Your task to perform on an android device: create a new album in the google photos Image 0: 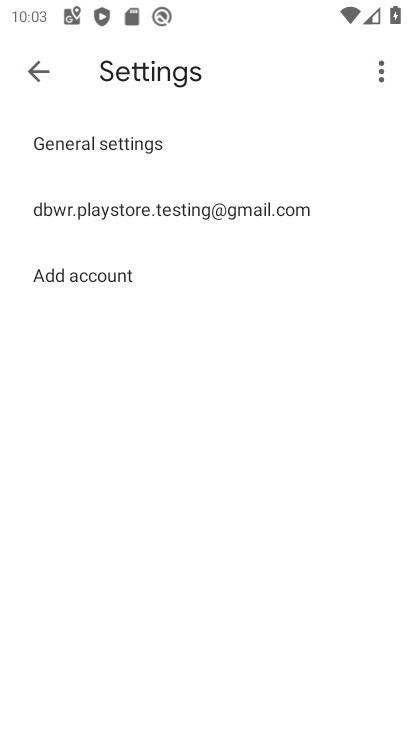
Step 0: press home button
Your task to perform on an android device: create a new album in the google photos Image 1: 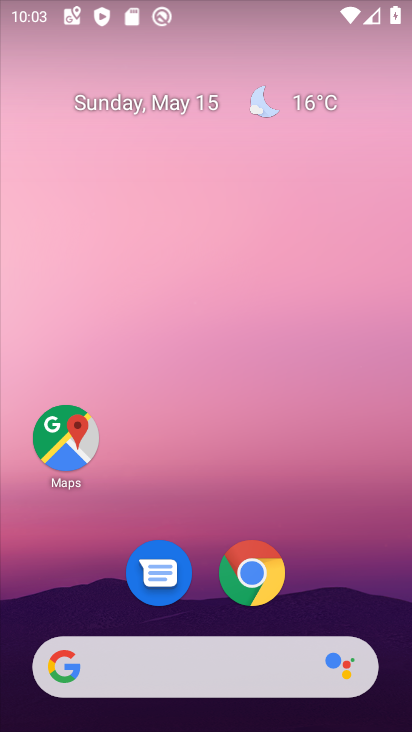
Step 1: drag from (383, 562) to (333, 94)
Your task to perform on an android device: create a new album in the google photos Image 2: 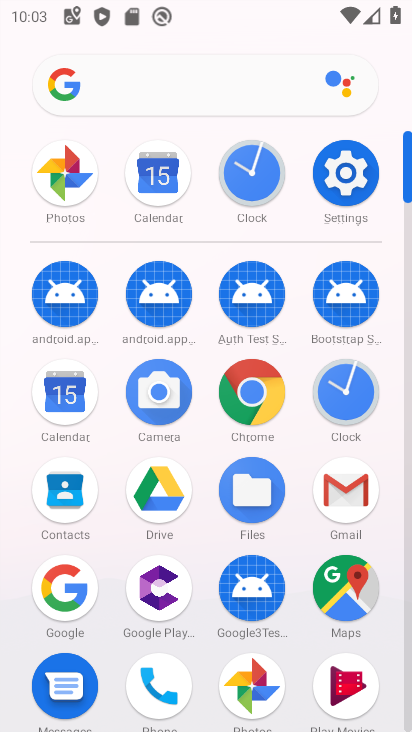
Step 2: click (260, 684)
Your task to perform on an android device: create a new album in the google photos Image 3: 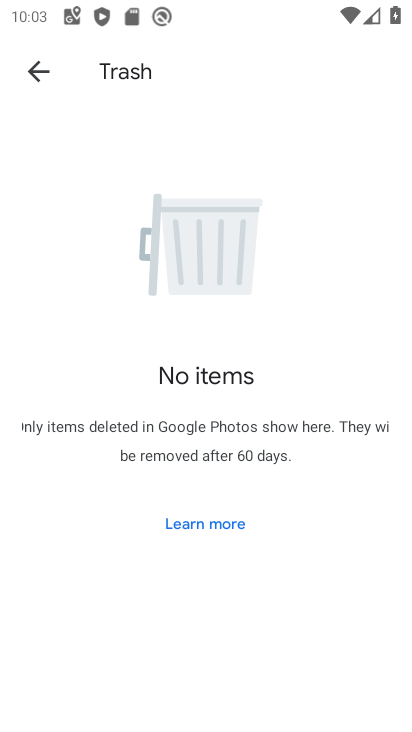
Step 3: click (43, 73)
Your task to perform on an android device: create a new album in the google photos Image 4: 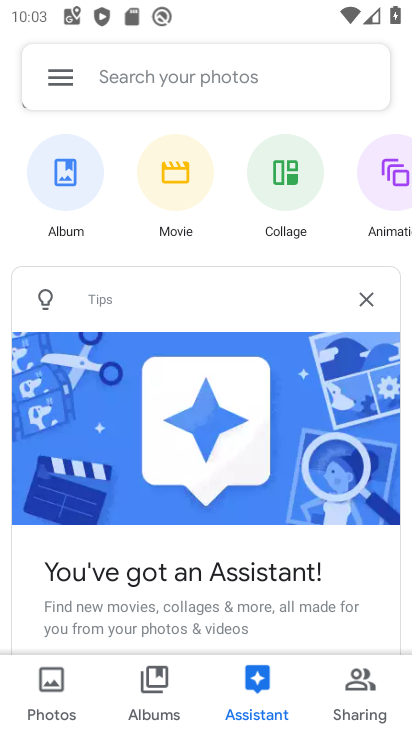
Step 4: click (141, 709)
Your task to perform on an android device: create a new album in the google photos Image 5: 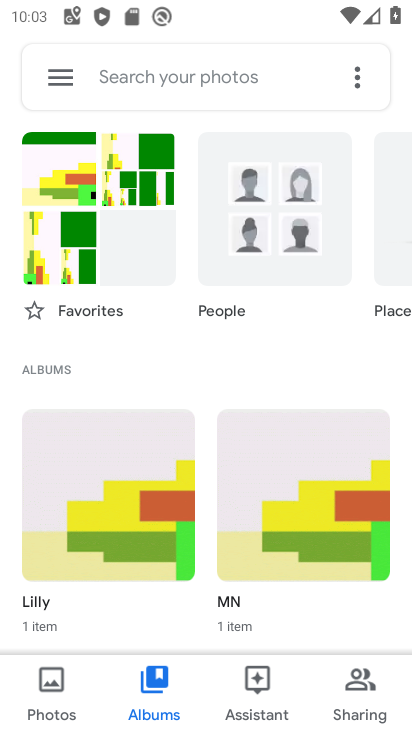
Step 5: click (355, 78)
Your task to perform on an android device: create a new album in the google photos Image 6: 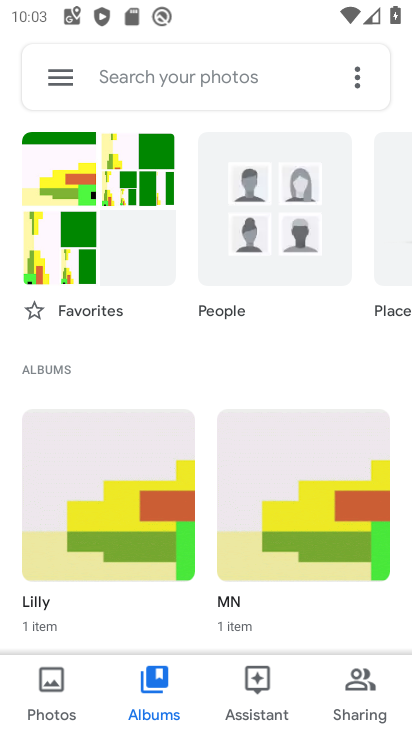
Step 6: click (57, 76)
Your task to perform on an android device: create a new album in the google photos Image 7: 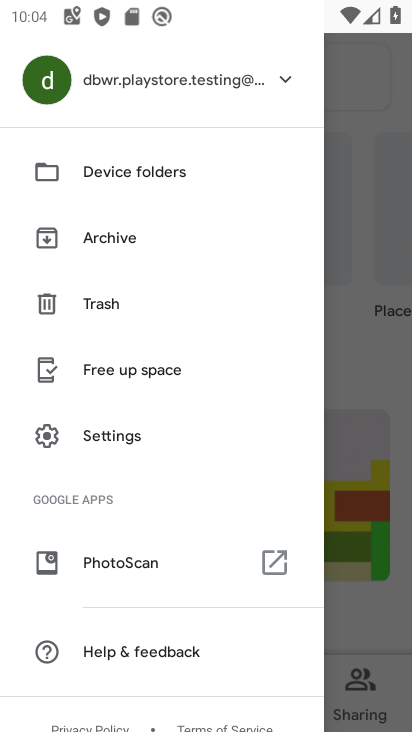
Step 7: click (396, 416)
Your task to perform on an android device: create a new album in the google photos Image 8: 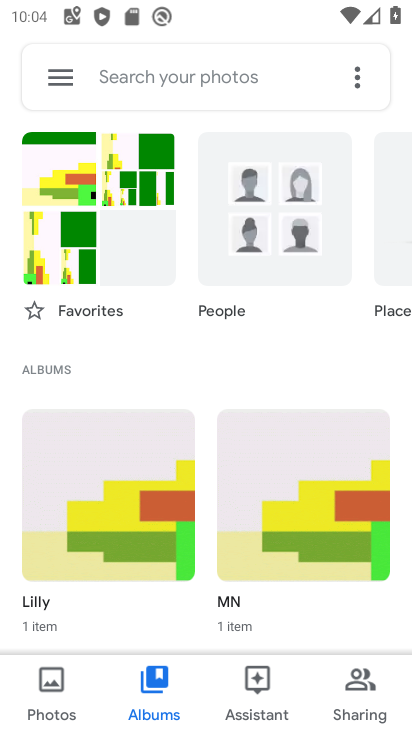
Step 8: click (28, 689)
Your task to perform on an android device: create a new album in the google photos Image 9: 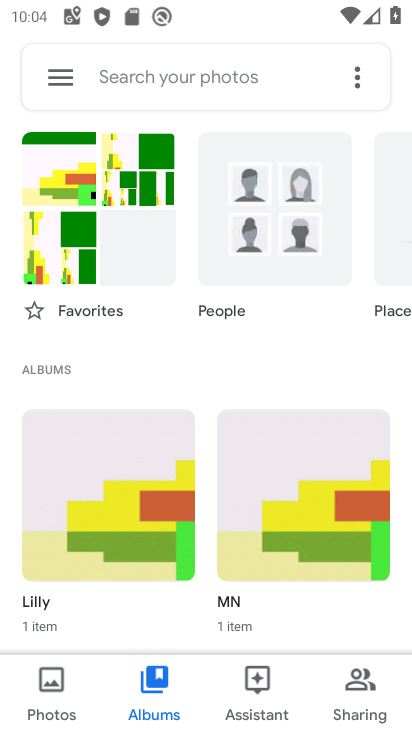
Step 9: click (44, 689)
Your task to perform on an android device: create a new album in the google photos Image 10: 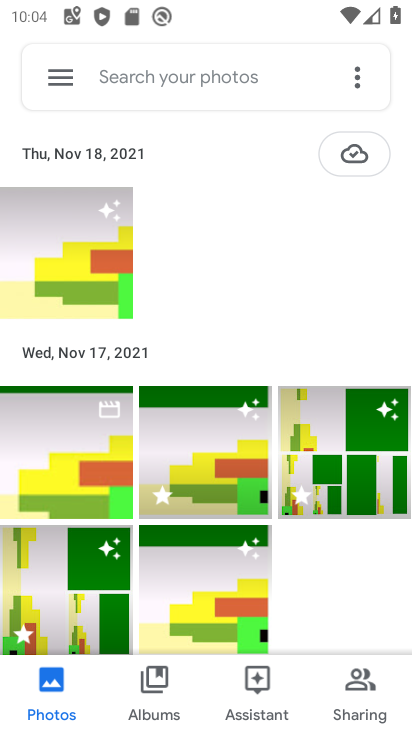
Step 10: click (94, 296)
Your task to perform on an android device: create a new album in the google photos Image 11: 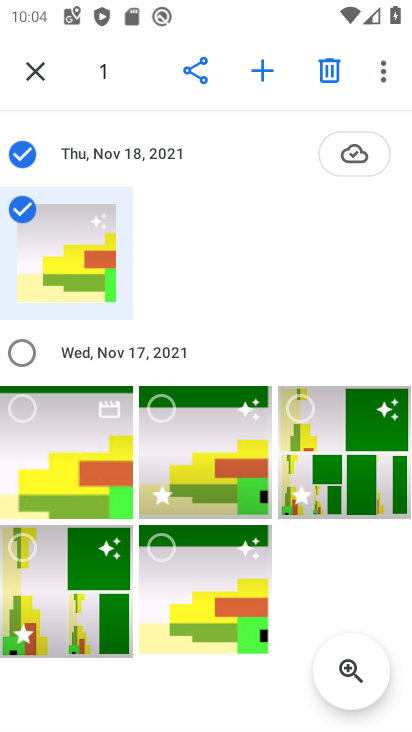
Step 11: click (124, 451)
Your task to perform on an android device: create a new album in the google photos Image 12: 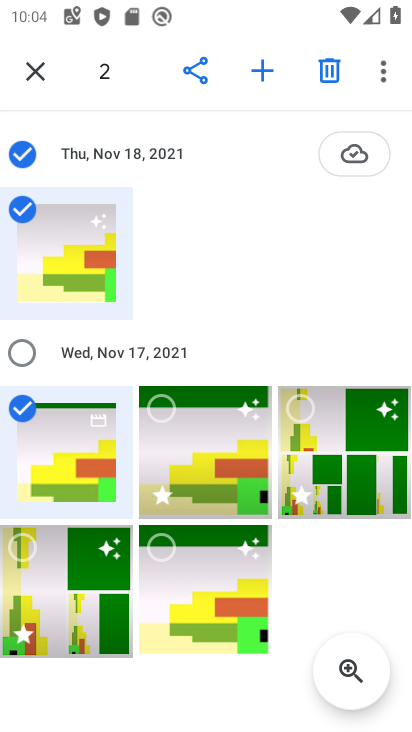
Step 12: click (179, 440)
Your task to perform on an android device: create a new album in the google photos Image 13: 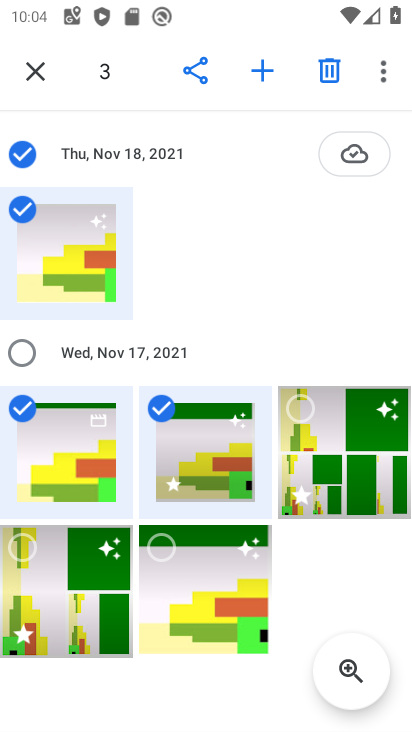
Step 13: click (368, 454)
Your task to perform on an android device: create a new album in the google photos Image 14: 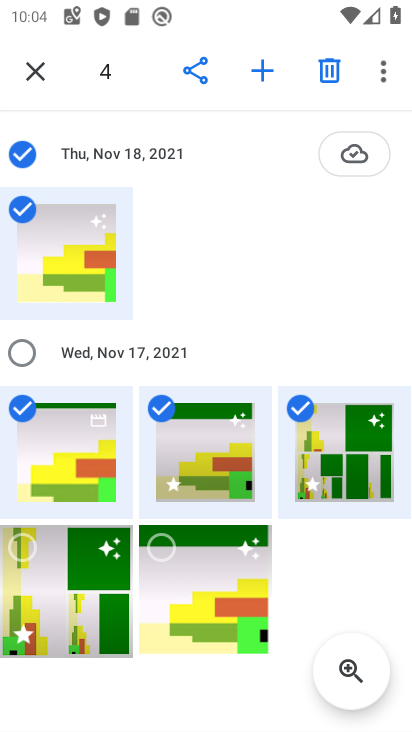
Step 14: click (270, 71)
Your task to perform on an android device: create a new album in the google photos Image 15: 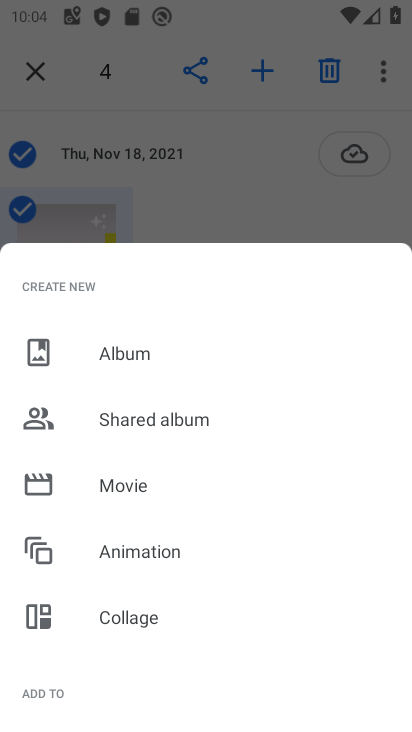
Step 15: click (161, 362)
Your task to perform on an android device: create a new album in the google photos Image 16: 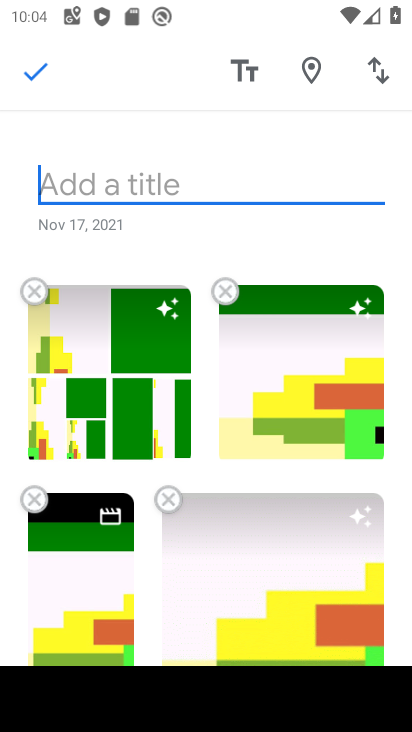
Step 16: type "fj"
Your task to perform on an android device: create a new album in the google photos Image 17: 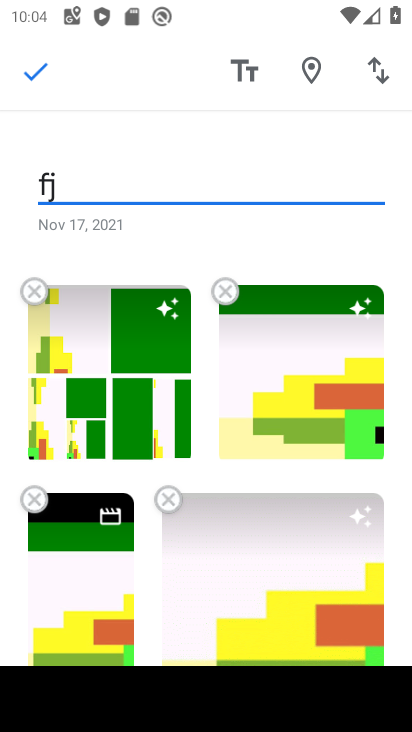
Step 17: click (37, 78)
Your task to perform on an android device: create a new album in the google photos Image 18: 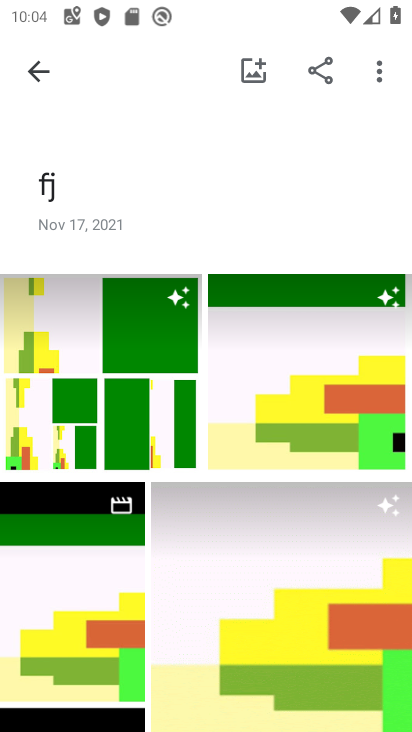
Step 18: task complete